Your task to perform on an android device: turn on bluetooth scan Image 0: 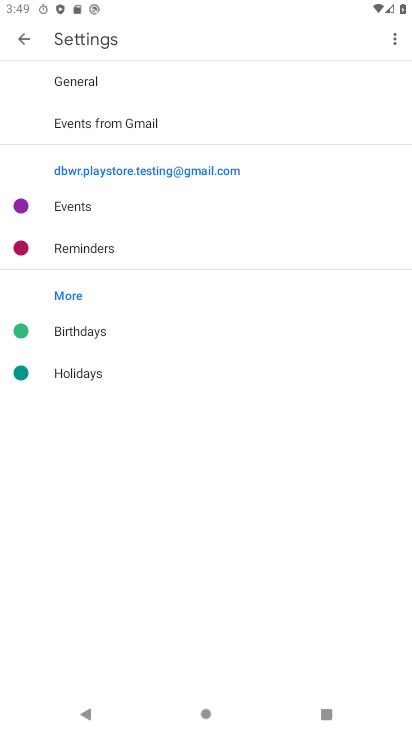
Step 0: press home button
Your task to perform on an android device: turn on bluetooth scan Image 1: 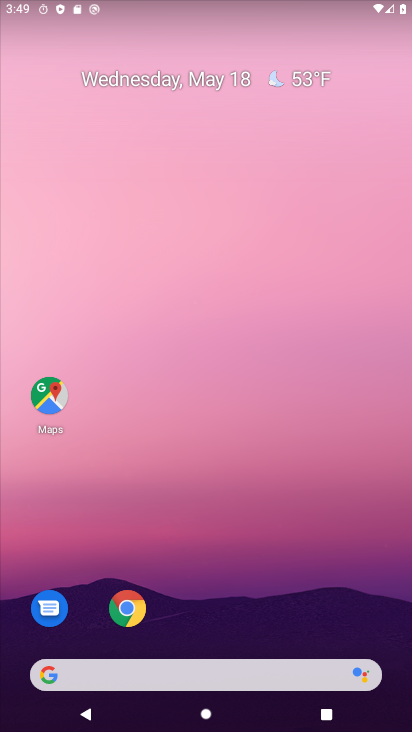
Step 1: drag from (330, 675) to (292, 18)
Your task to perform on an android device: turn on bluetooth scan Image 2: 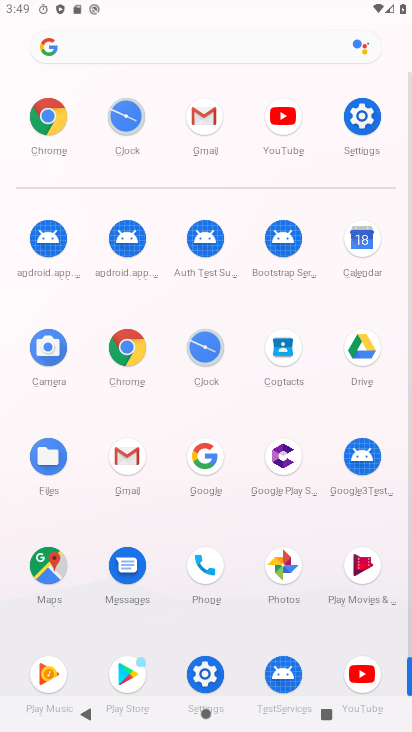
Step 2: click (371, 107)
Your task to perform on an android device: turn on bluetooth scan Image 3: 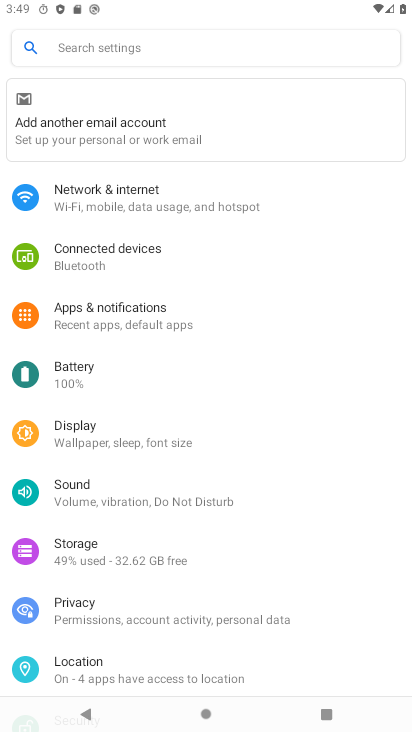
Step 3: click (140, 676)
Your task to perform on an android device: turn on bluetooth scan Image 4: 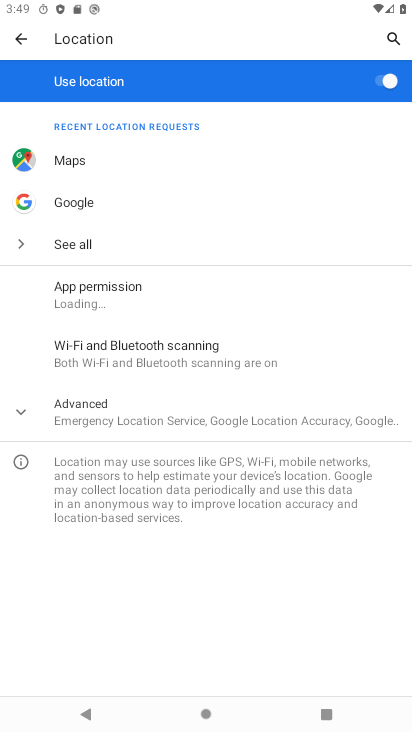
Step 4: click (184, 353)
Your task to perform on an android device: turn on bluetooth scan Image 5: 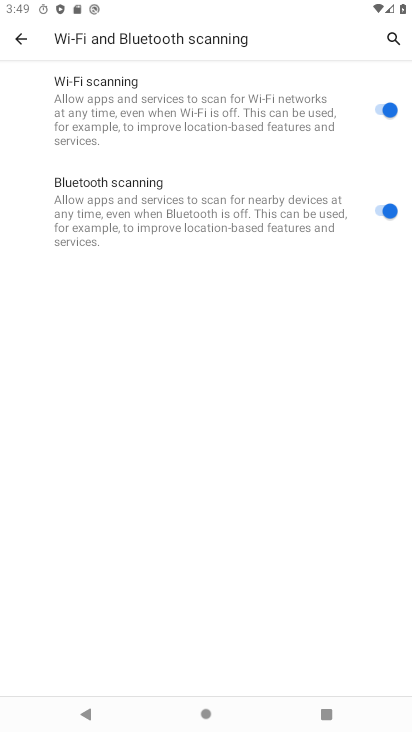
Step 5: task complete